Your task to perform on an android device: see sites visited before in the chrome app Image 0: 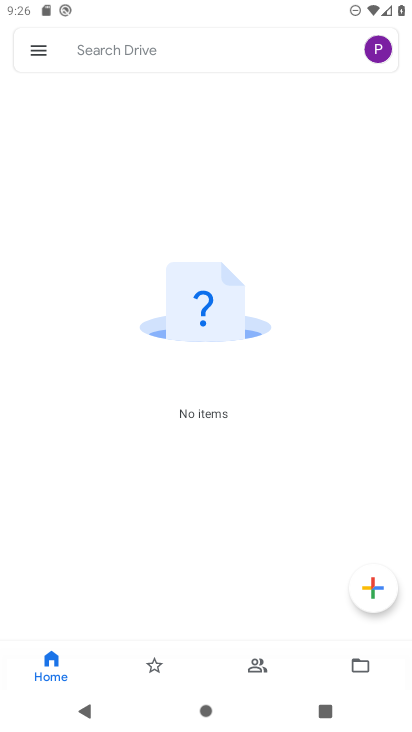
Step 0: press home button
Your task to perform on an android device: see sites visited before in the chrome app Image 1: 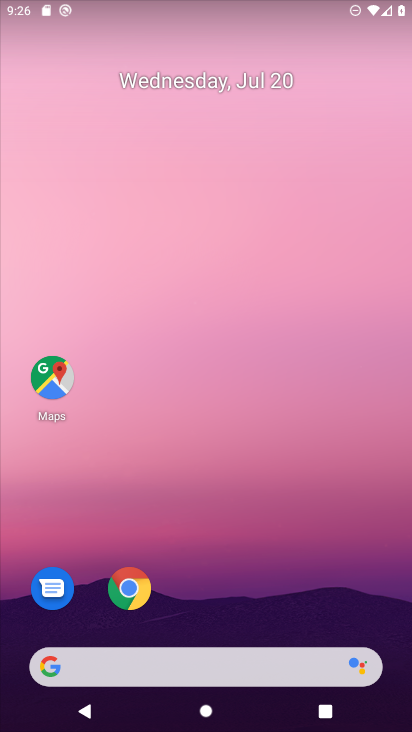
Step 1: click (128, 587)
Your task to perform on an android device: see sites visited before in the chrome app Image 2: 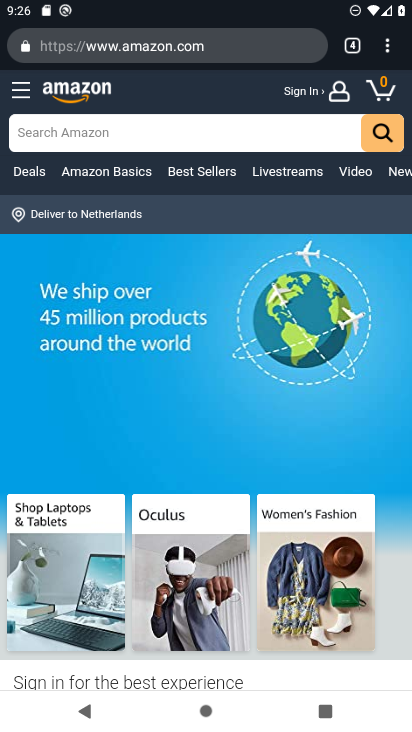
Step 2: click (396, 51)
Your task to perform on an android device: see sites visited before in the chrome app Image 3: 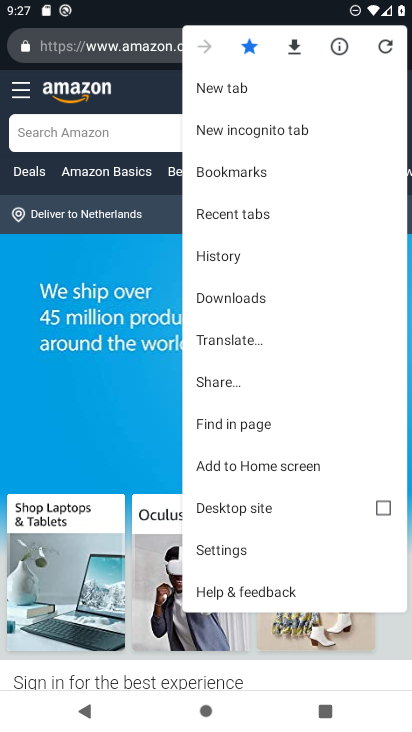
Step 3: click (273, 227)
Your task to perform on an android device: see sites visited before in the chrome app Image 4: 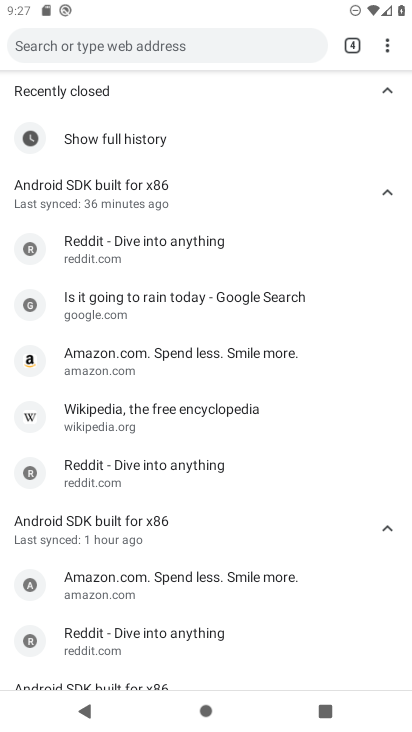
Step 4: task complete